Your task to perform on an android device: turn off priority inbox in the gmail app Image 0: 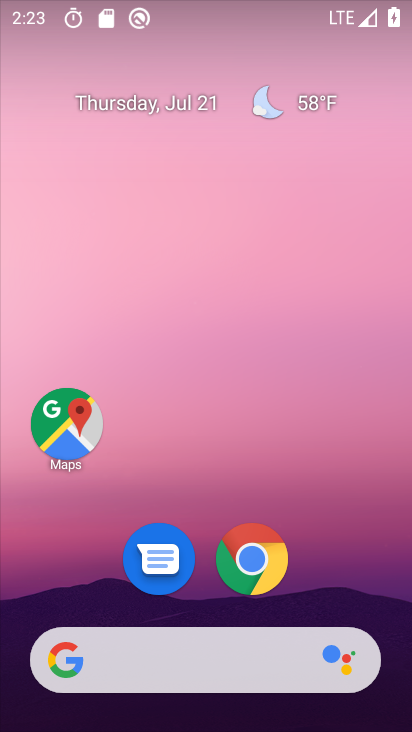
Step 0: drag from (369, 568) to (362, 93)
Your task to perform on an android device: turn off priority inbox in the gmail app Image 1: 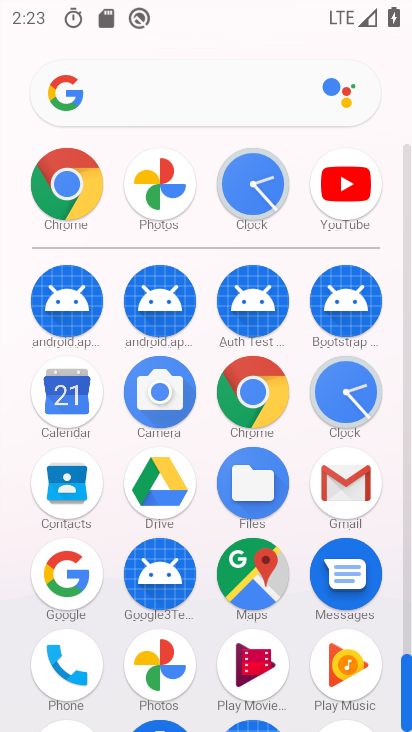
Step 1: click (347, 487)
Your task to perform on an android device: turn off priority inbox in the gmail app Image 2: 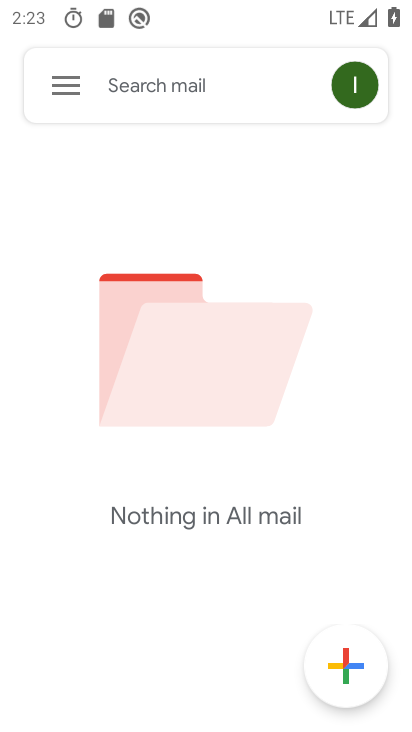
Step 2: click (73, 95)
Your task to perform on an android device: turn off priority inbox in the gmail app Image 3: 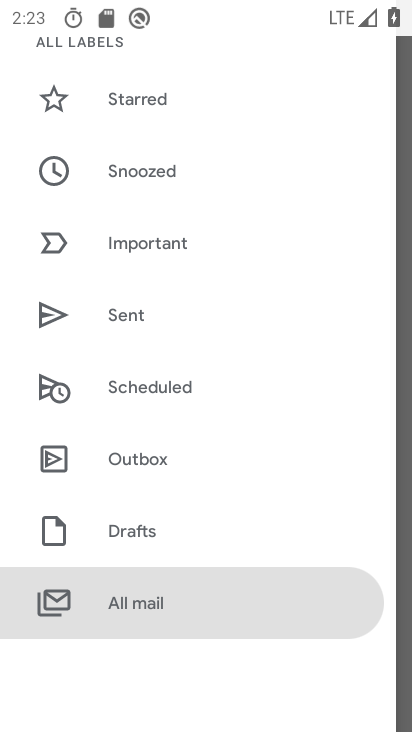
Step 3: drag from (310, 299) to (322, 411)
Your task to perform on an android device: turn off priority inbox in the gmail app Image 4: 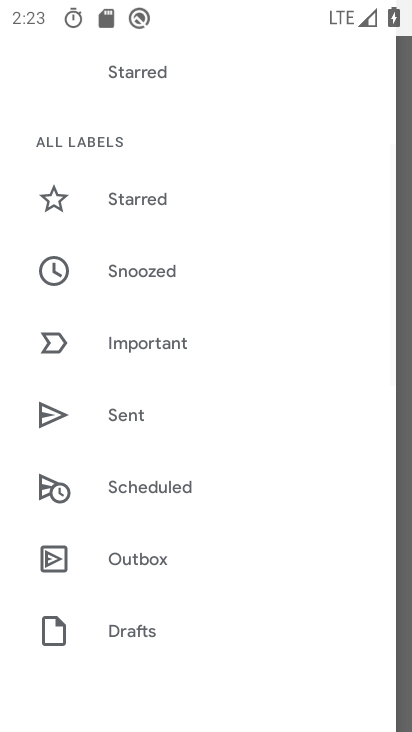
Step 4: drag from (322, 239) to (324, 410)
Your task to perform on an android device: turn off priority inbox in the gmail app Image 5: 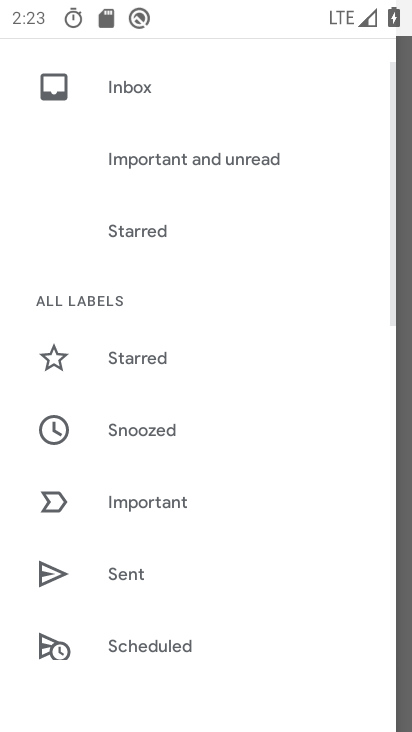
Step 5: drag from (306, 257) to (311, 431)
Your task to perform on an android device: turn off priority inbox in the gmail app Image 6: 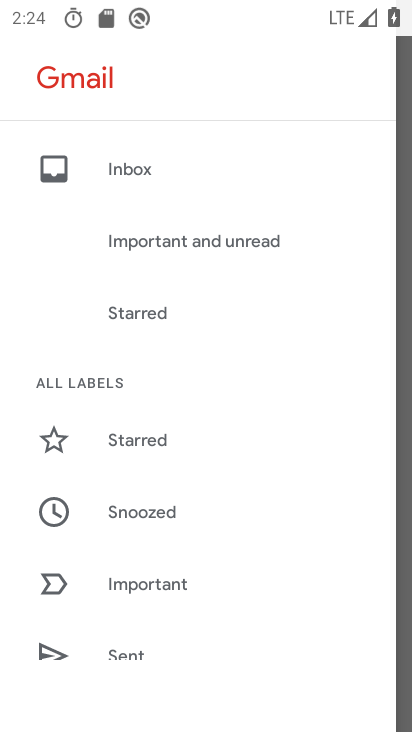
Step 6: drag from (312, 464) to (307, 343)
Your task to perform on an android device: turn off priority inbox in the gmail app Image 7: 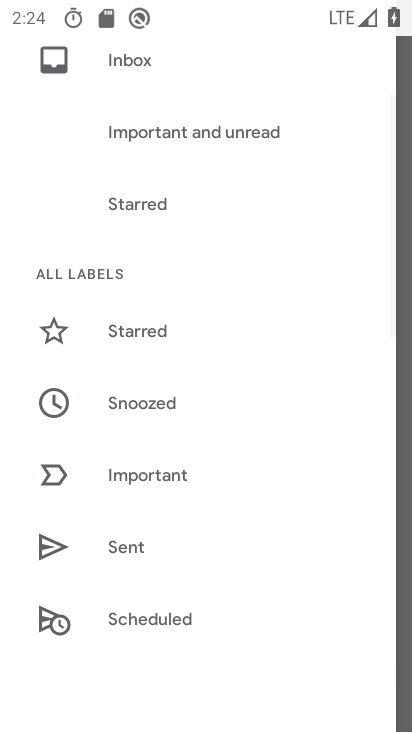
Step 7: drag from (296, 436) to (290, 239)
Your task to perform on an android device: turn off priority inbox in the gmail app Image 8: 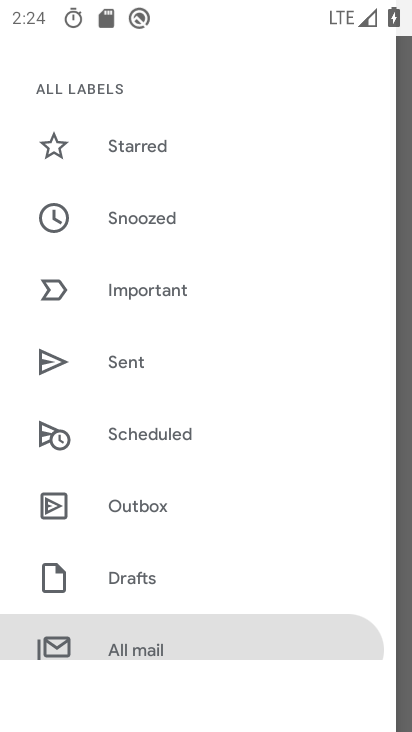
Step 8: drag from (292, 462) to (286, 318)
Your task to perform on an android device: turn off priority inbox in the gmail app Image 9: 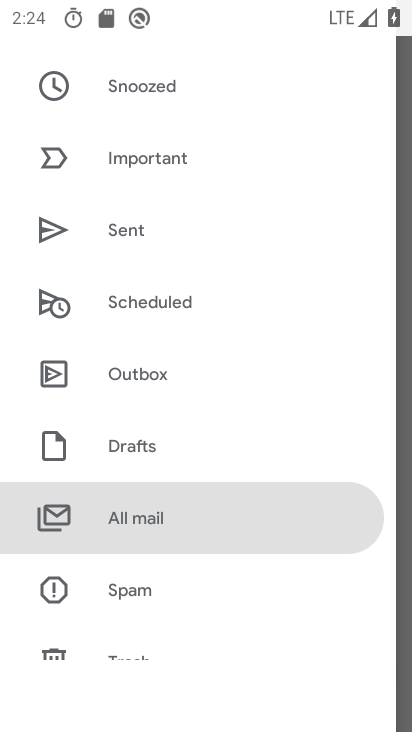
Step 9: drag from (317, 612) to (322, 415)
Your task to perform on an android device: turn off priority inbox in the gmail app Image 10: 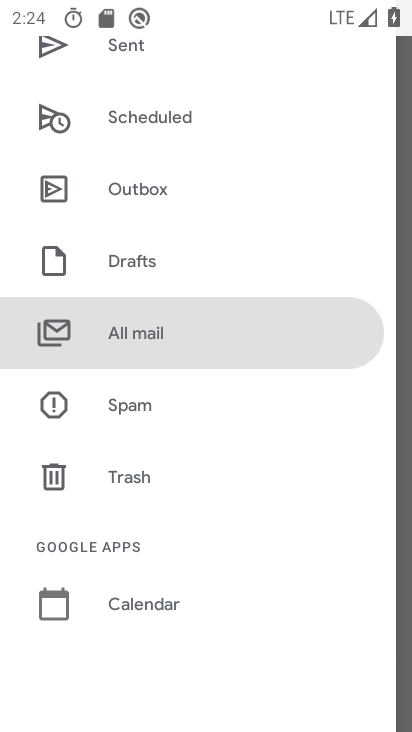
Step 10: drag from (313, 546) to (307, 413)
Your task to perform on an android device: turn off priority inbox in the gmail app Image 11: 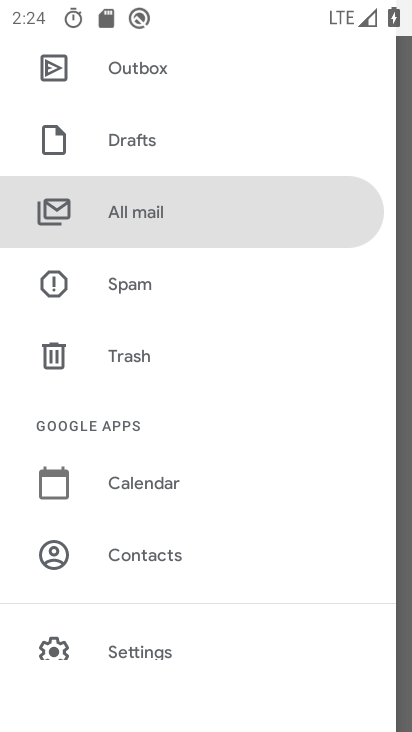
Step 11: drag from (296, 580) to (312, 387)
Your task to perform on an android device: turn off priority inbox in the gmail app Image 12: 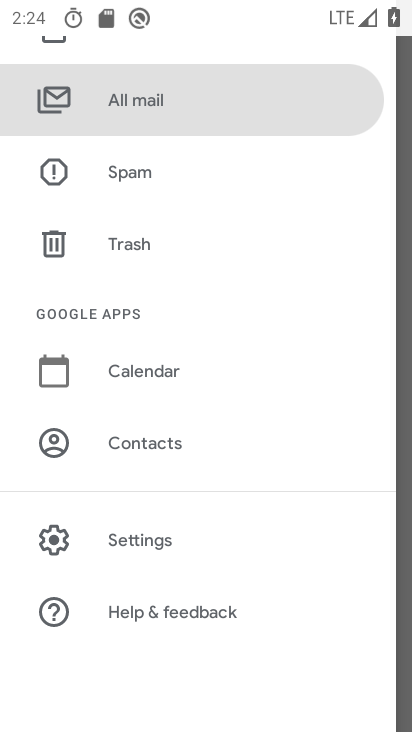
Step 12: click (271, 548)
Your task to perform on an android device: turn off priority inbox in the gmail app Image 13: 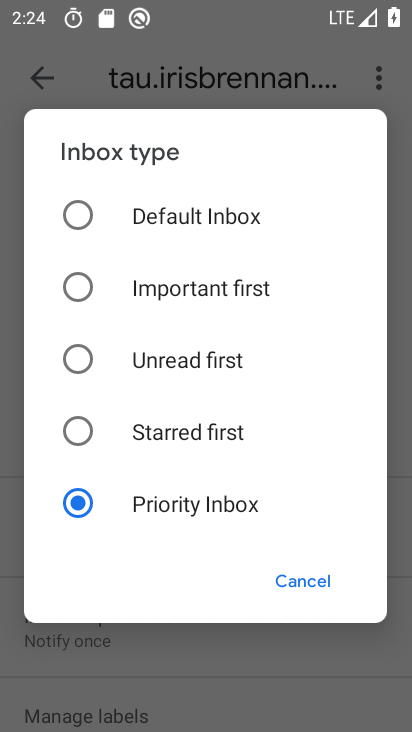
Step 13: click (213, 357)
Your task to perform on an android device: turn off priority inbox in the gmail app Image 14: 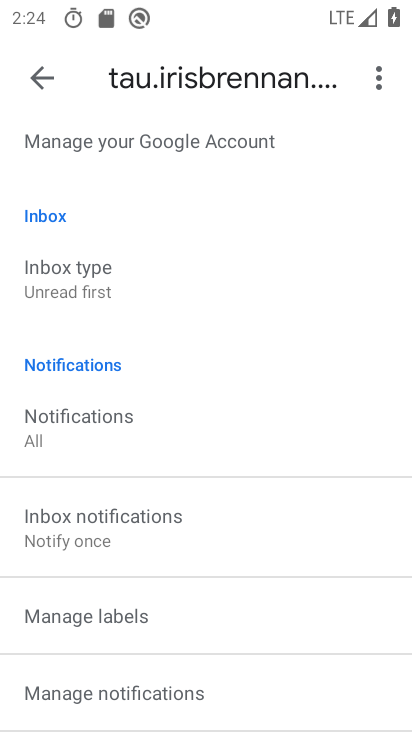
Step 14: task complete